Your task to perform on an android device: open a new tab in the chrome app Image 0: 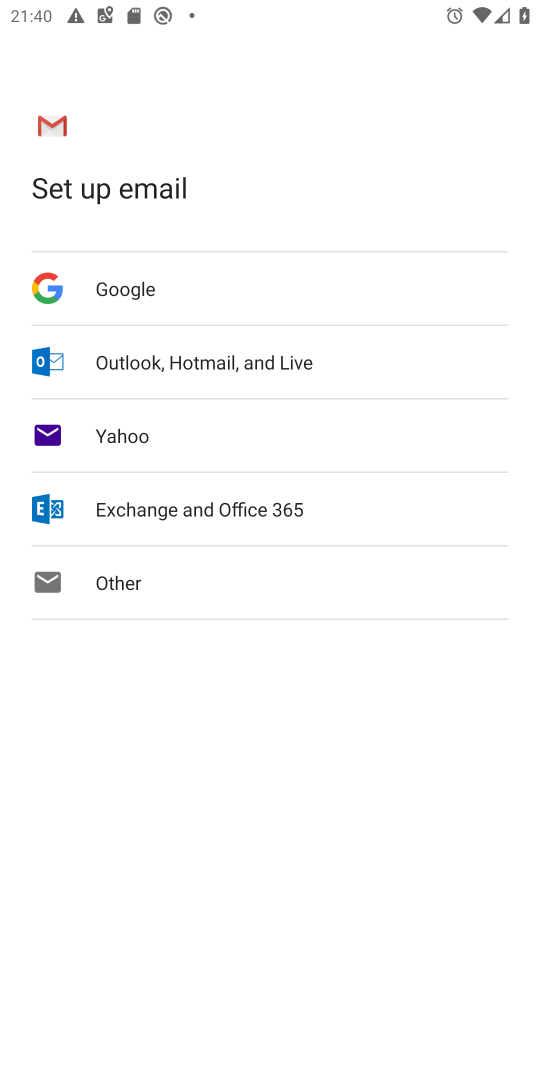
Step 0: press home button
Your task to perform on an android device: open a new tab in the chrome app Image 1: 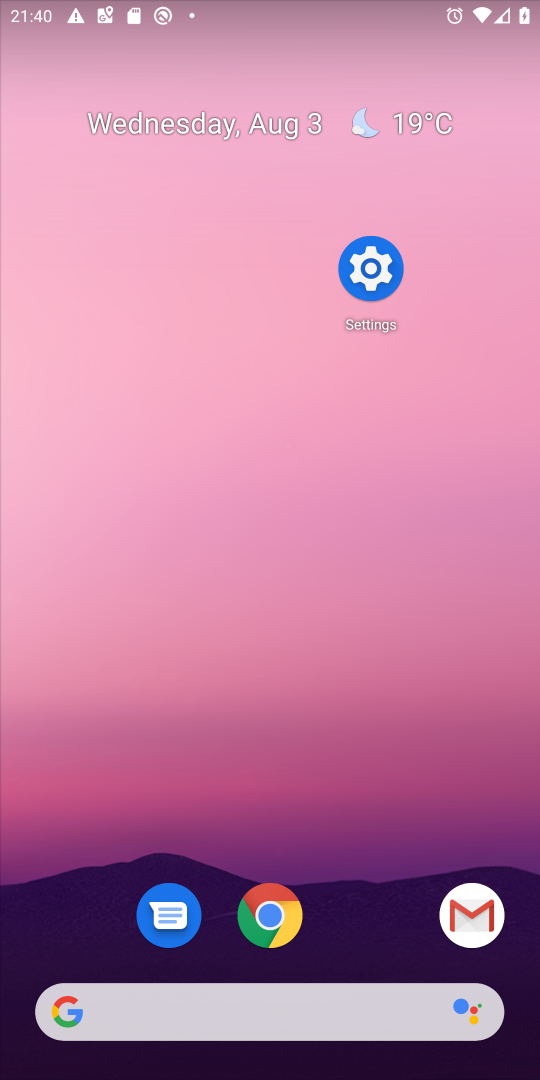
Step 1: drag from (320, 1044) to (281, 266)
Your task to perform on an android device: open a new tab in the chrome app Image 2: 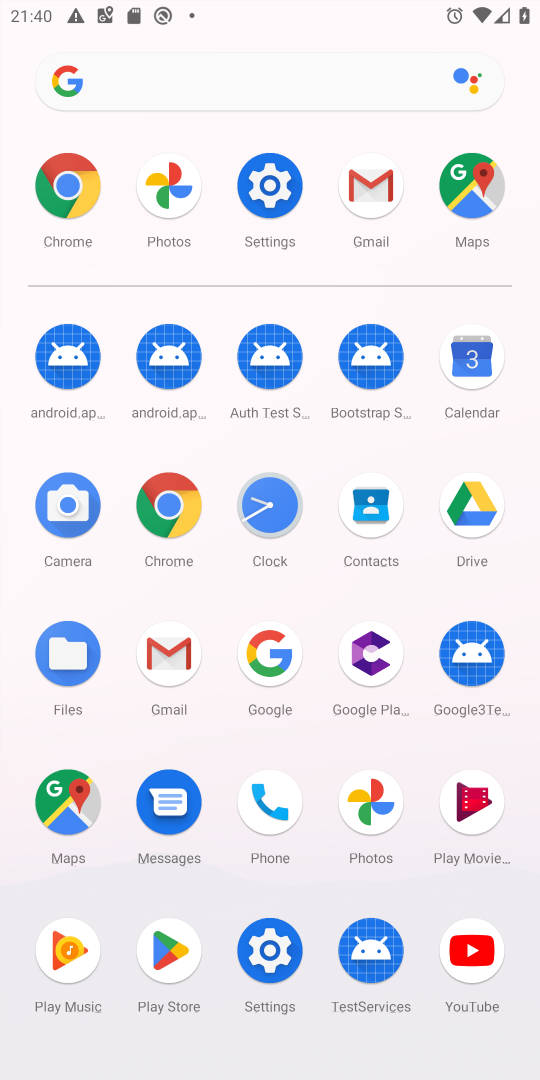
Step 2: click (169, 522)
Your task to perform on an android device: open a new tab in the chrome app Image 3: 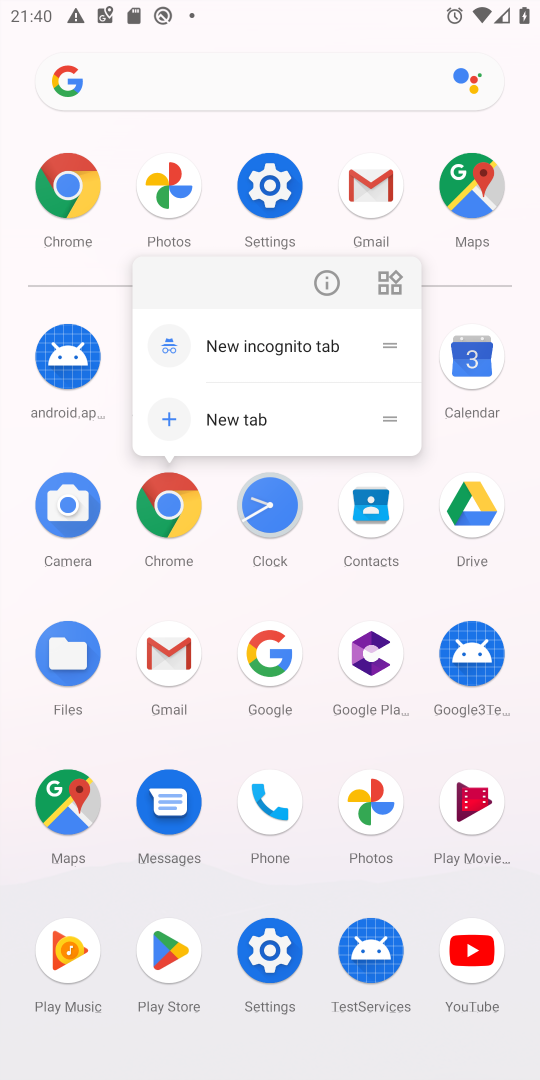
Step 3: click (168, 503)
Your task to perform on an android device: open a new tab in the chrome app Image 4: 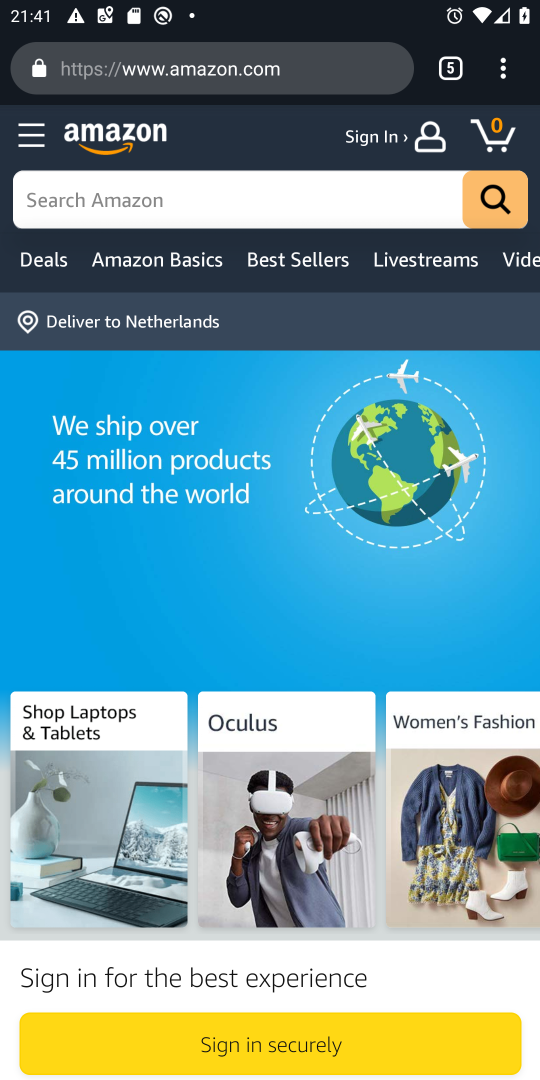
Step 4: click (504, 57)
Your task to perform on an android device: open a new tab in the chrome app Image 5: 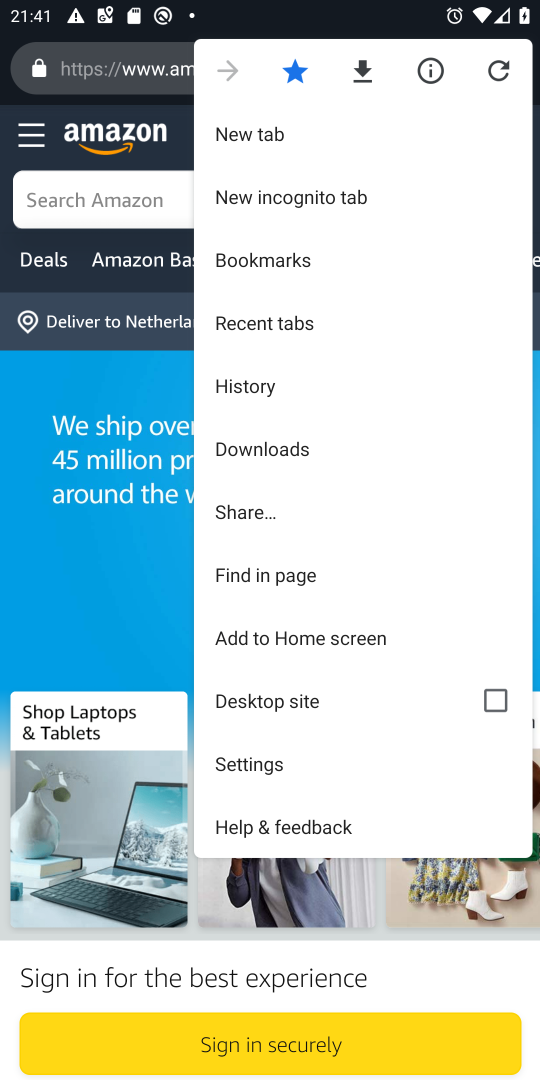
Step 5: click (287, 759)
Your task to perform on an android device: open a new tab in the chrome app Image 6: 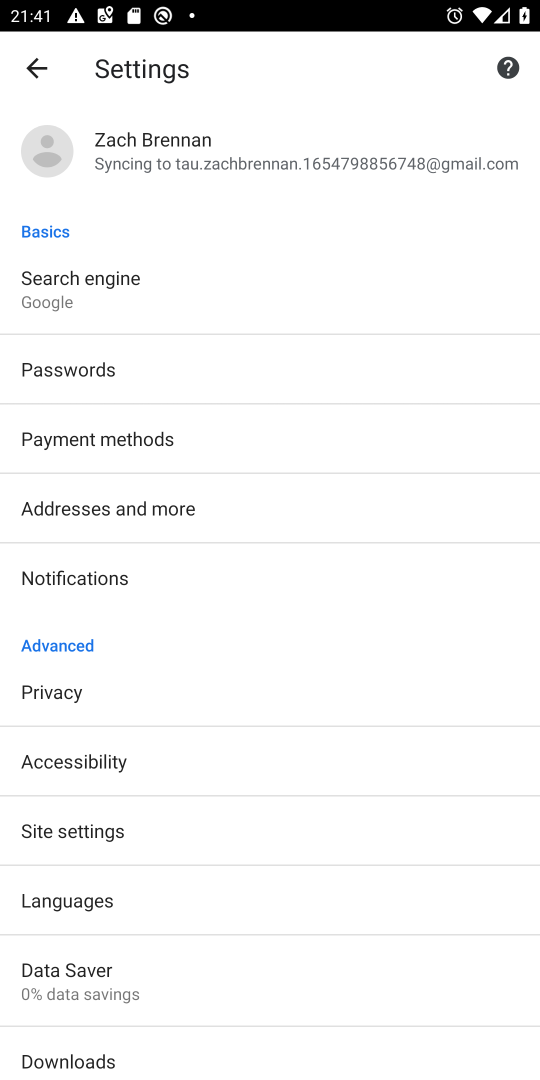
Step 6: click (28, 53)
Your task to perform on an android device: open a new tab in the chrome app Image 7: 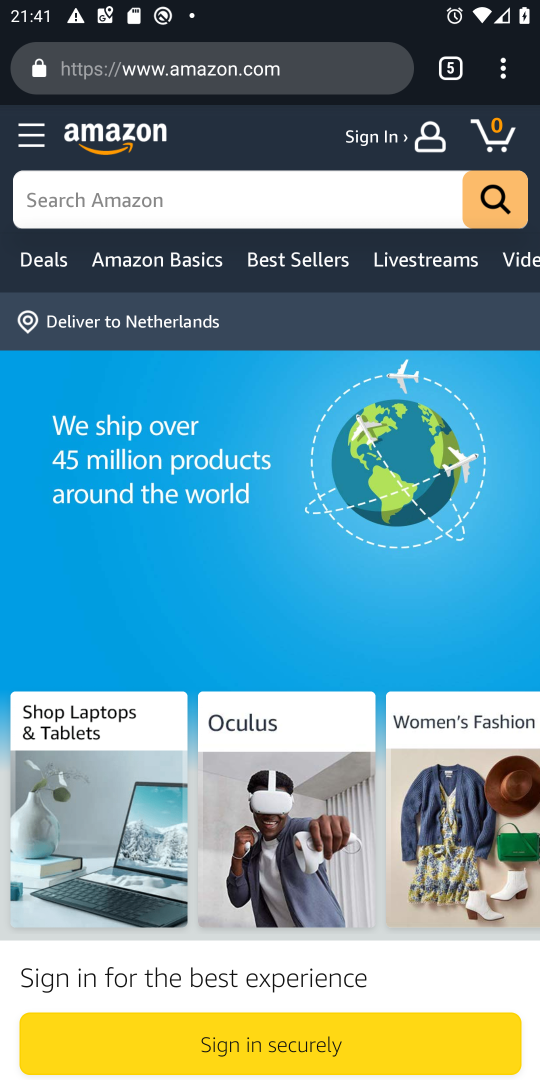
Step 7: click (464, 75)
Your task to perform on an android device: open a new tab in the chrome app Image 8: 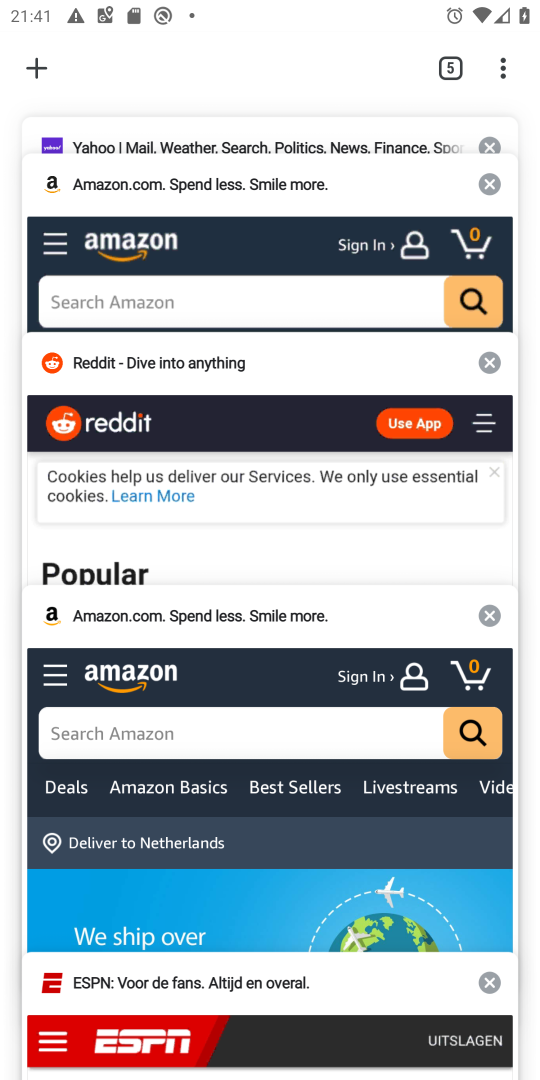
Step 8: click (49, 70)
Your task to perform on an android device: open a new tab in the chrome app Image 9: 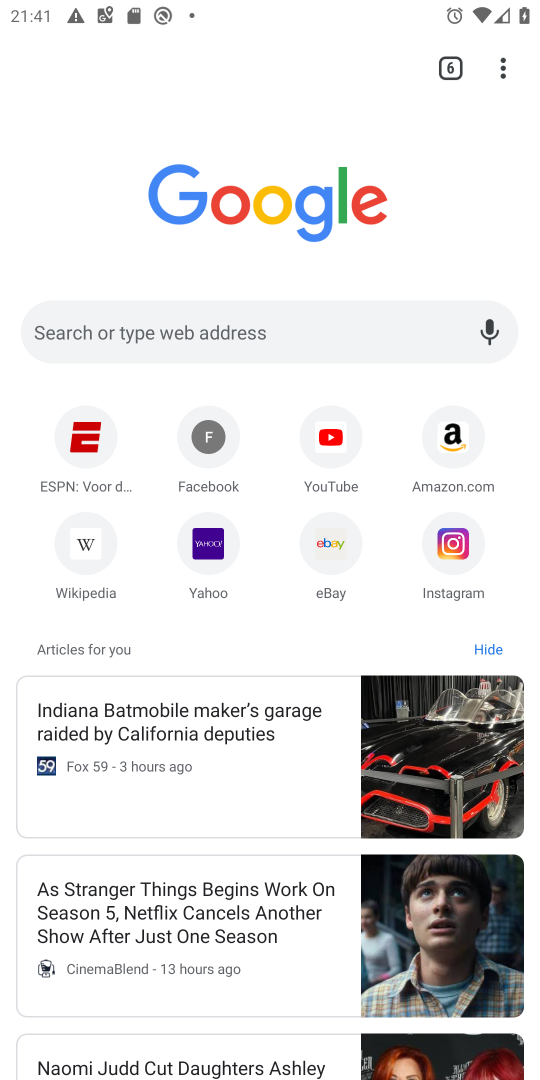
Step 9: task complete